Your task to perform on an android device: turn off picture-in-picture Image 0: 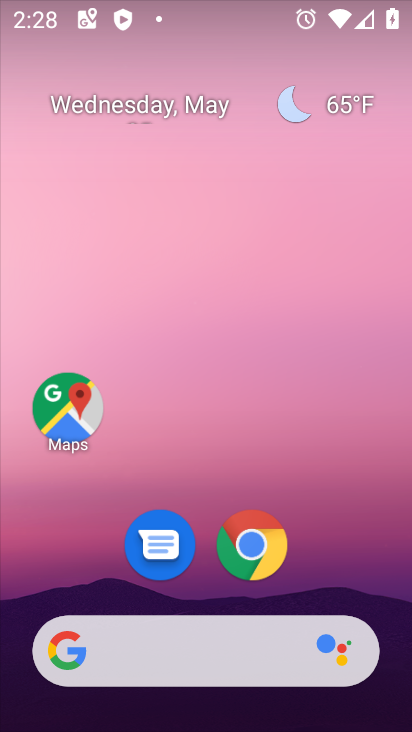
Step 0: drag from (328, 444) to (189, 8)
Your task to perform on an android device: turn off picture-in-picture Image 1: 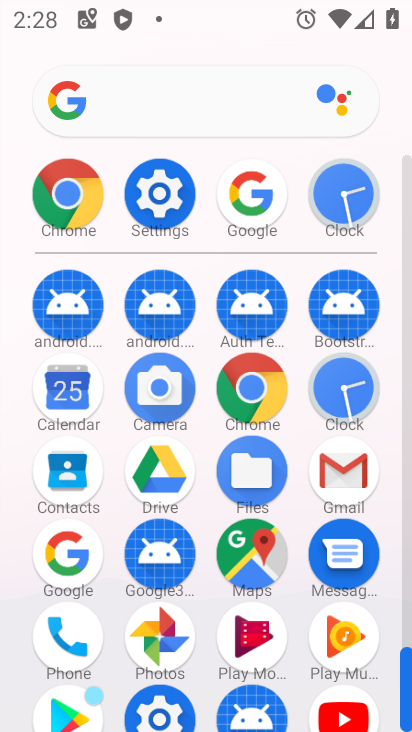
Step 1: click (169, 185)
Your task to perform on an android device: turn off picture-in-picture Image 2: 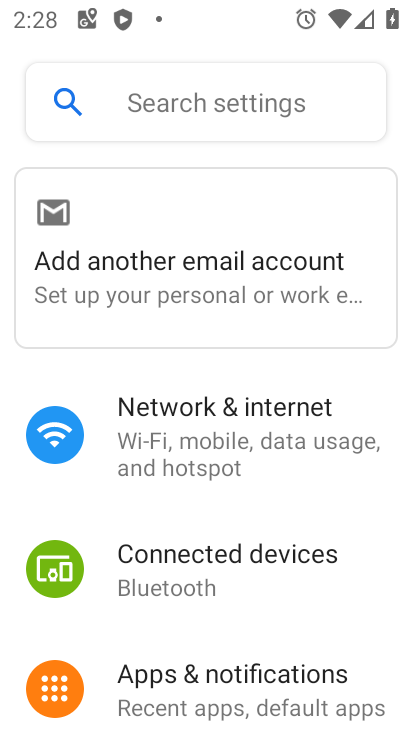
Step 2: drag from (299, 566) to (255, 227)
Your task to perform on an android device: turn off picture-in-picture Image 3: 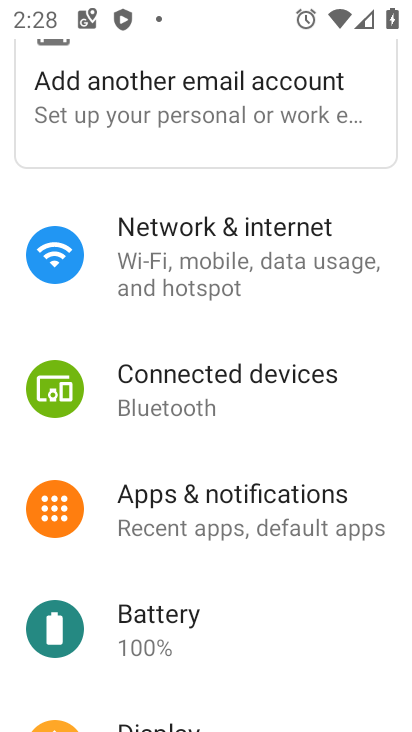
Step 3: click (246, 489)
Your task to perform on an android device: turn off picture-in-picture Image 4: 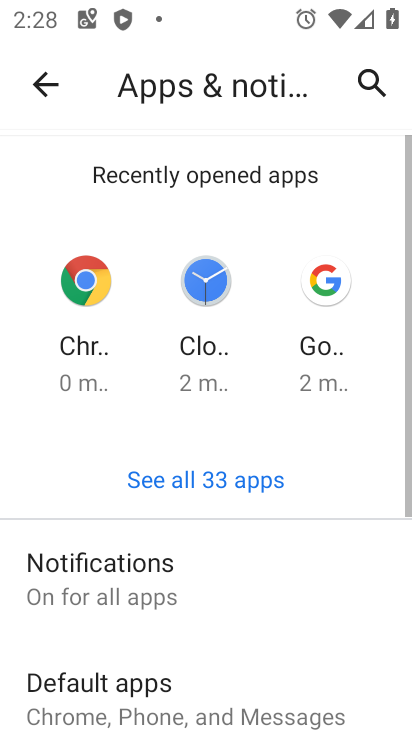
Step 4: drag from (256, 607) to (277, 255)
Your task to perform on an android device: turn off picture-in-picture Image 5: 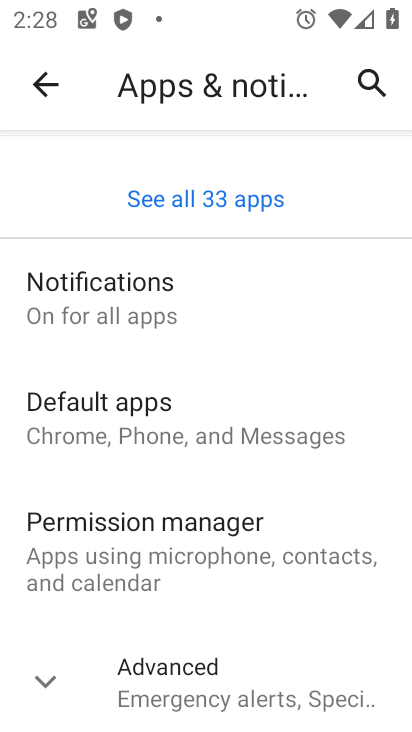
Step 5: click (254, 681)
Your task to perform on an android device: turn off picture-in-picture Image 6: 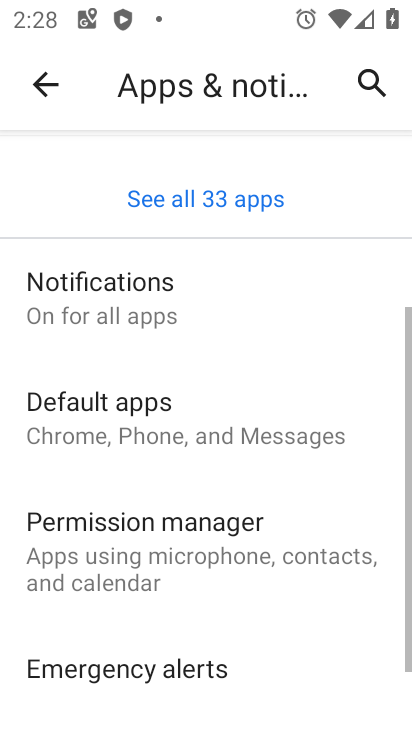
Step 6: drag from (255, 608) to (266, 253)
Your task to perform on an android device: turn off picture-in-picture Image 7: 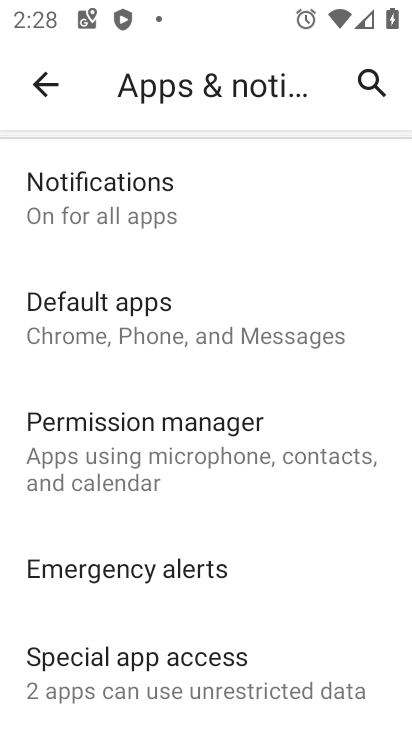
Step 7: drag from (170, 572) to (194, 183)
Your task to perform on an android device: turn off picture-in-picture Image 8: 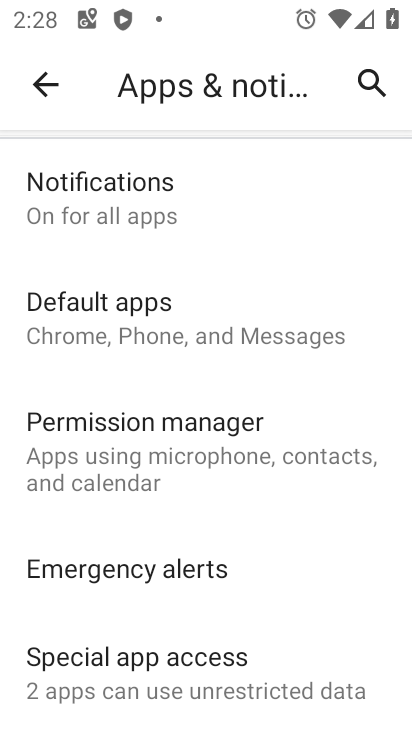
Step 8: click (172, 658)
Your task to perform on an android device: turn off picture-in-picture Image 9: 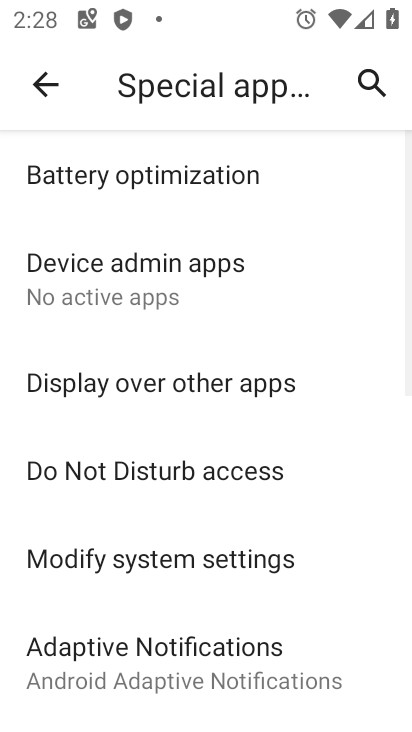
Step 9: drag from (200, 599) to (222, 202)
Your task to perform on an android device: turn off picture-in-picture Image 10: 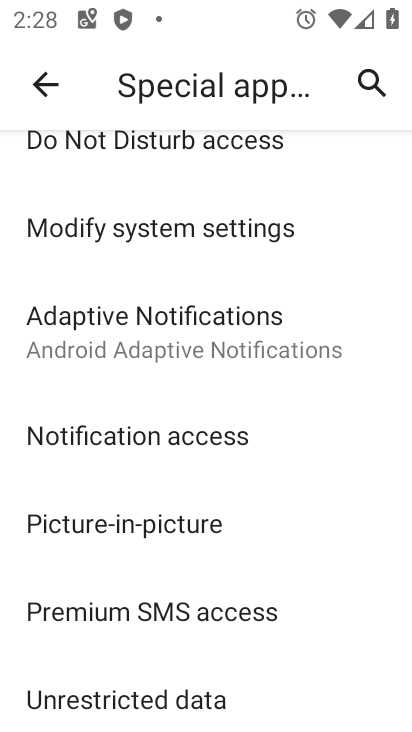
Step 10: click (161, 523)
Your task to perform on an android device: turn off picture-in-picture Image 11: 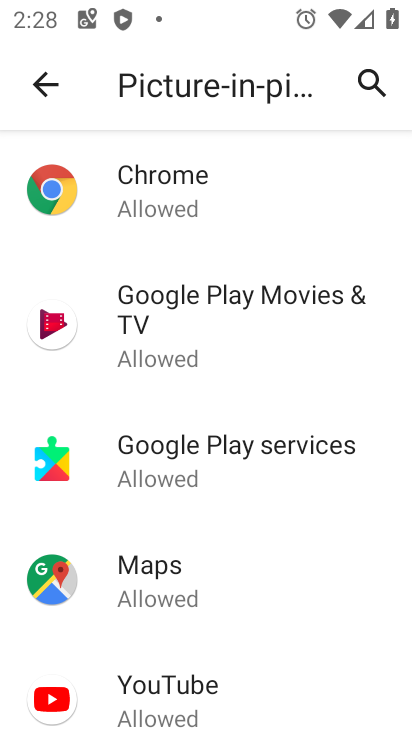
Step 11: click (275, 444)
Your task to perform on an android device: turn off picture-in-picture Image 12: 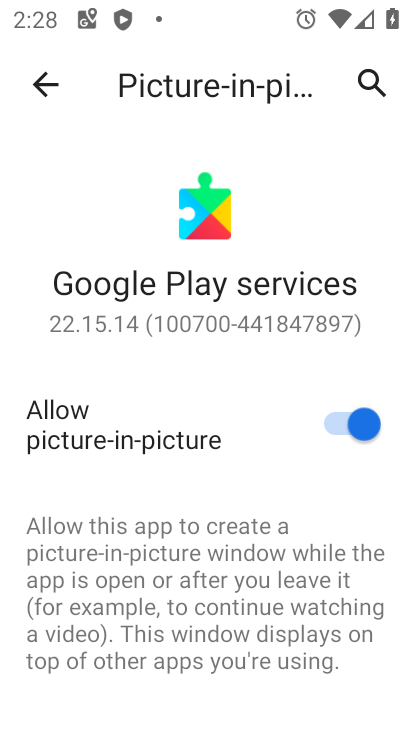
Step 12: click (360, 408)
Your task to perform on an android device: turn off picture-in-picture Image 13: 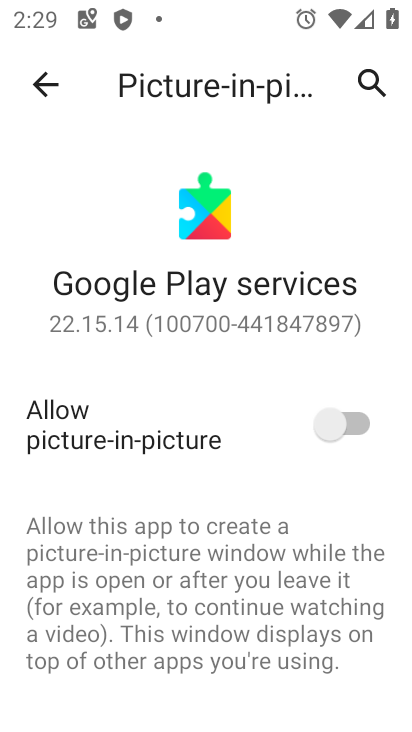
Step 13: task complete